Your task to perform on an android device: Search for jbl flip 4 on target.com, select the first entry, add it to the cart, then select checkout. Image 0: 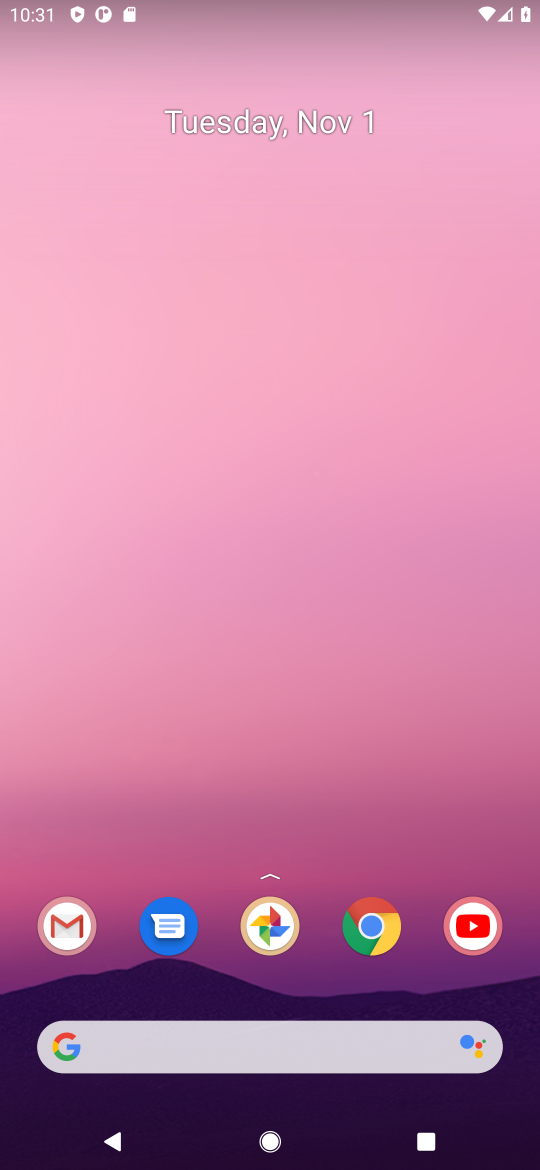
Step 0: click (377, 934)
Your task to perform on an android device: Search for jbl flip 4 on target.com, select the first entry, add it to the cart, then select checkout. Image 1: 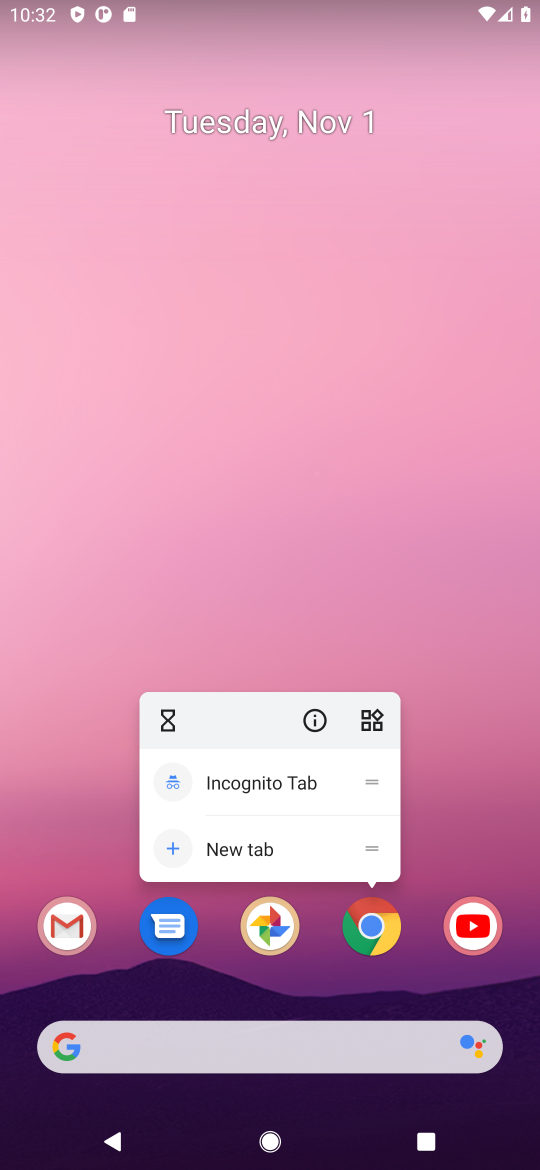
Step 1: click (369, 925)
Your task to perform on an android device: Search for jbl flip 4 on target.com, select the first entry, add it to the cart, then select checkout. Image 2: 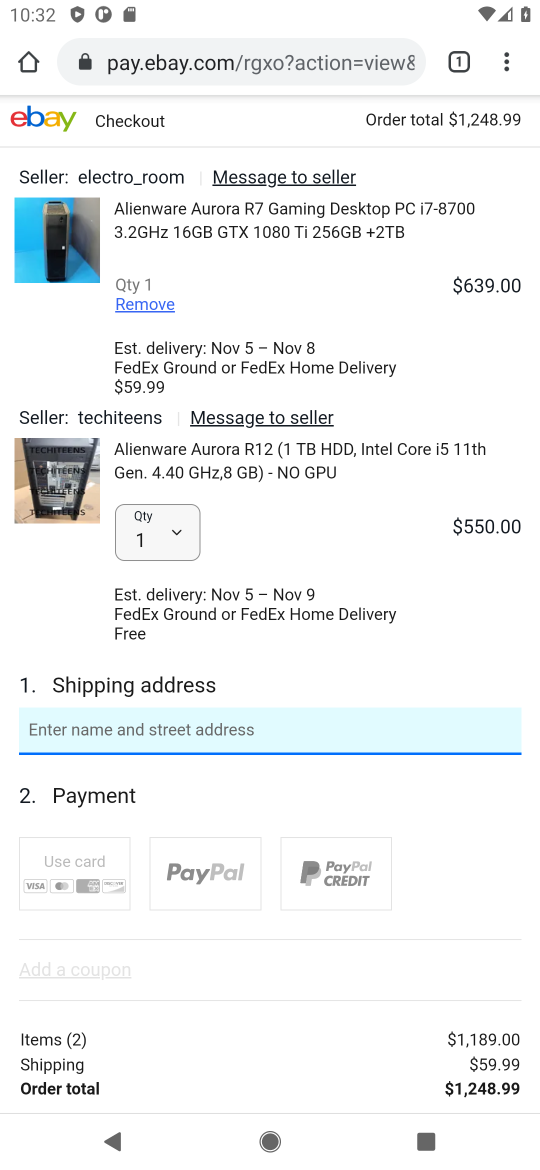
Step 2: click (177, 61)
Your task to perform on an android device: Search for jbl flip 4 on target.com, select the first entry, add it to the cart, then select checkout. Image 3: 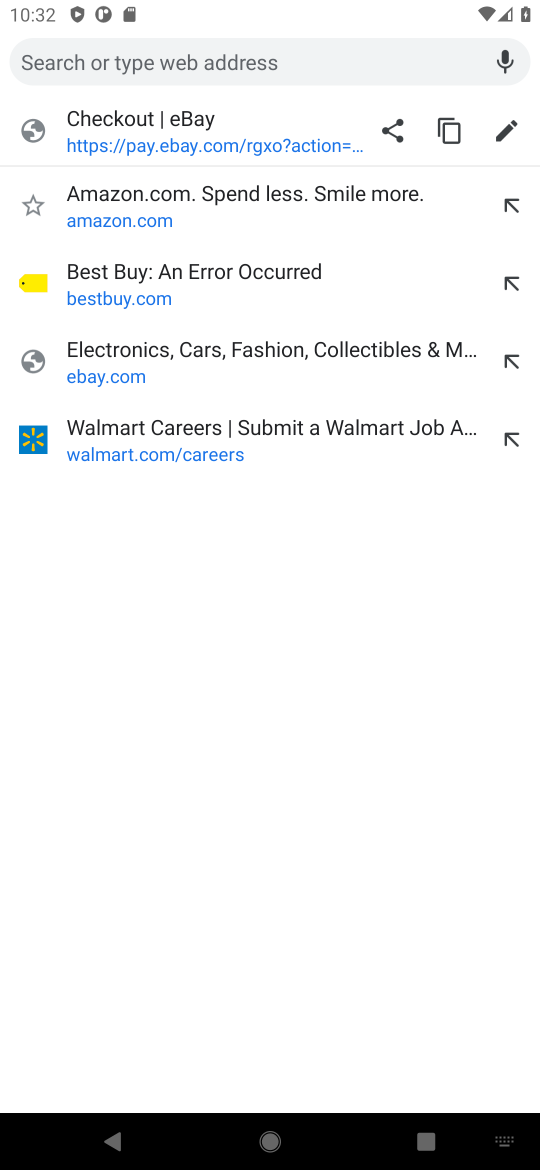
Step 3: type "target.com"
Your task to perform on an android device: Search for jbl flip 4 on target.com, select the first entry, add it to the cart, then select checkout. Image 4: 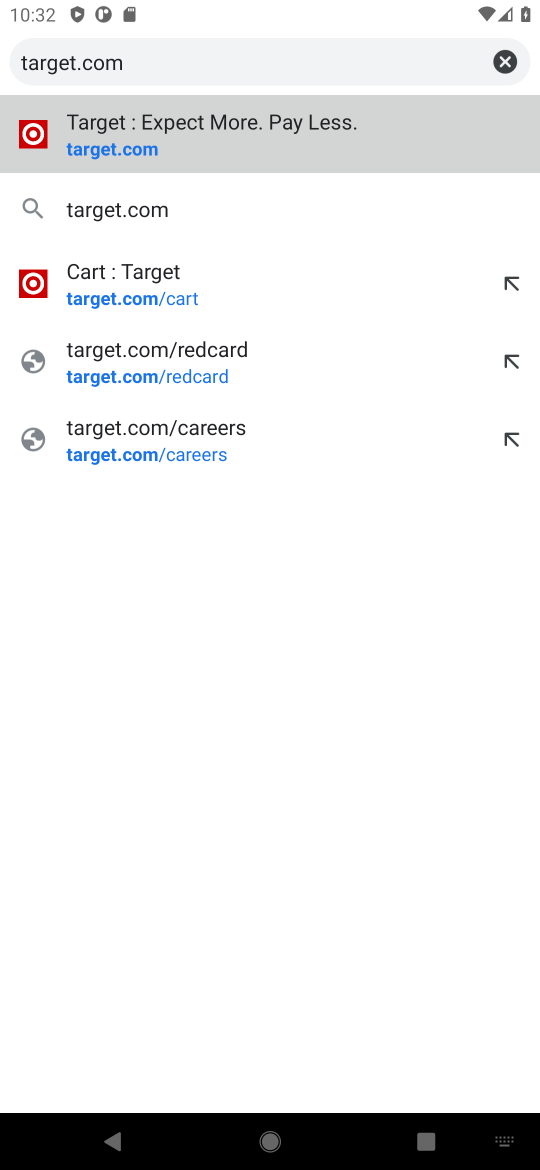
Step 4: click (122, 138)
Your task to perform on an android device: Search for jbl flip 4 on target.com, select the first entry, add it to the cart, then select checkout. Image 5: 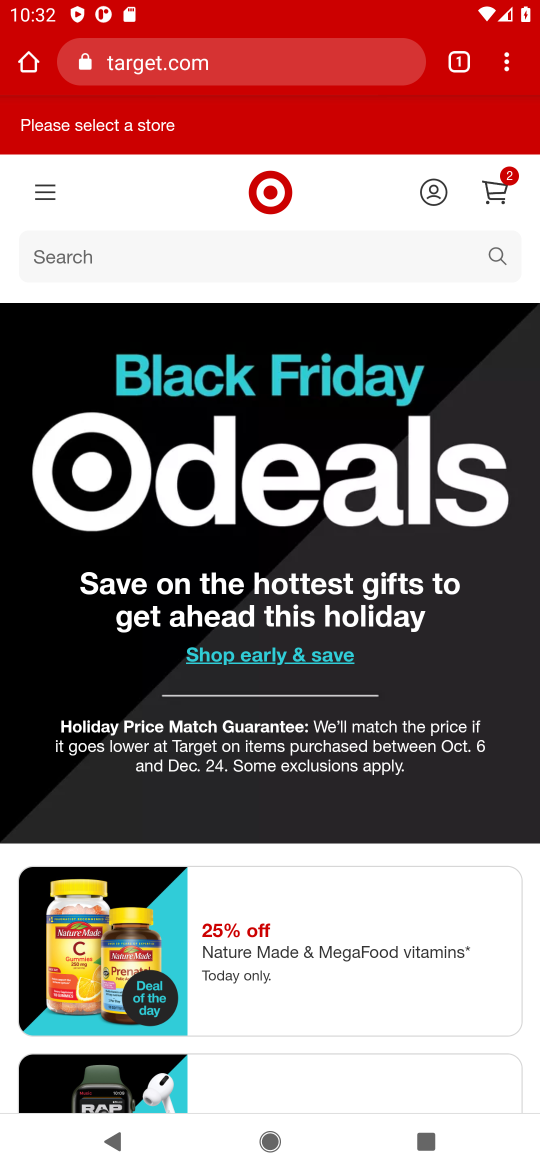
Step 5: click (496, 264)
Your task to perform on an android device: Search for jbl flip 4 on target.com, select the first entry, add it to the cart, then select checkout. Image 6: 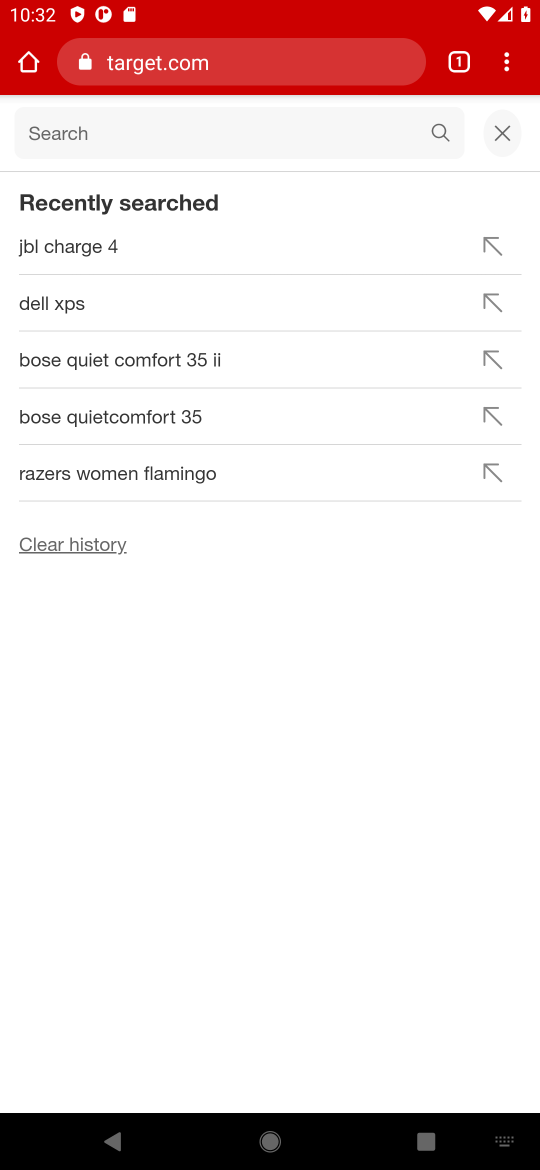
Step 6: type "jbl flip 4"
Your task to perform on an android device: Search for jbl flip 4 on target.com, select the first entry, add it to the cart, then select checkout. Image 7: 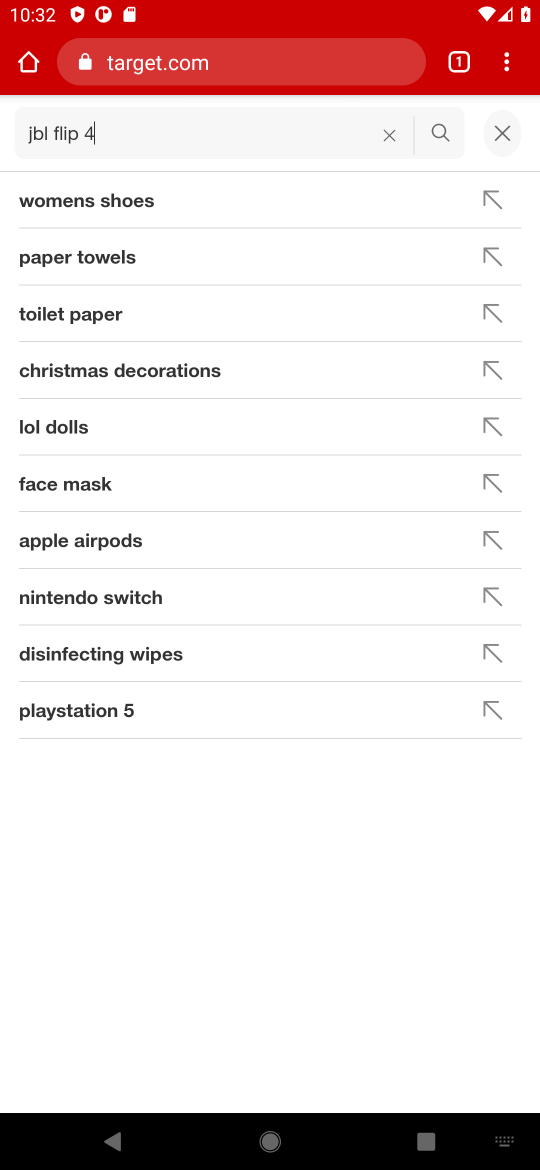
Step 7: type ""
Your task to perform on an android device: Search for jbl flip 4 on target.com, select the first entry, add it to the cart, then select checkout. Image 8: 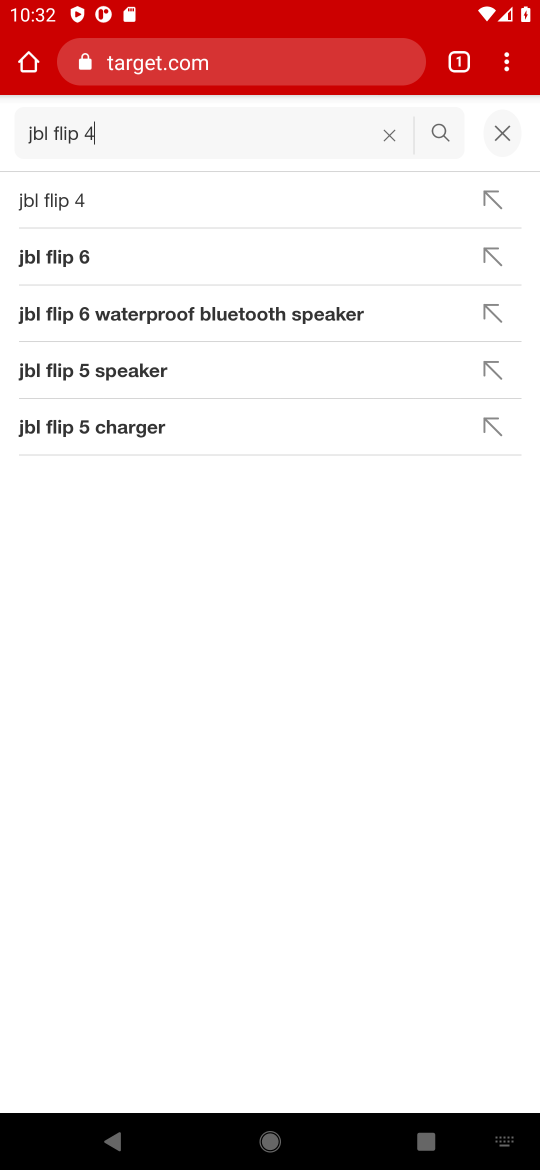
Step 8: click (32, 200)
Your task to perform on an android device: Search for jbl flip 4 on target.com, select the first entry, add it to the cart, then select checkout. Image 9: 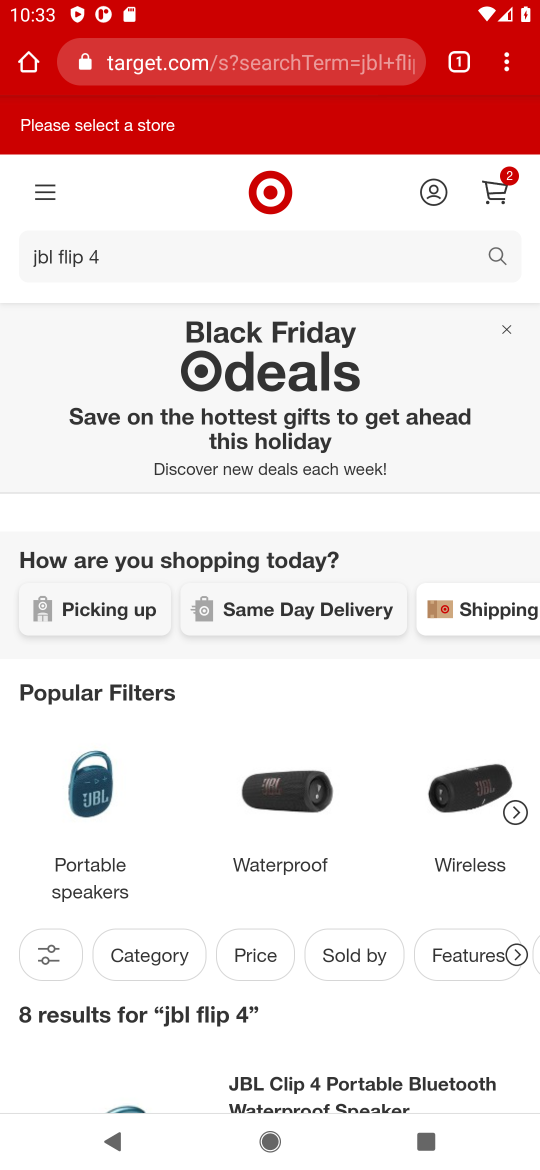
Step 9: drag from (197, 997) to (249, 428)
Your task to perform on an android device: Search for jbl flip 4 on target.com, select the first entry, add it to the cart, then select checkout. Image 10: 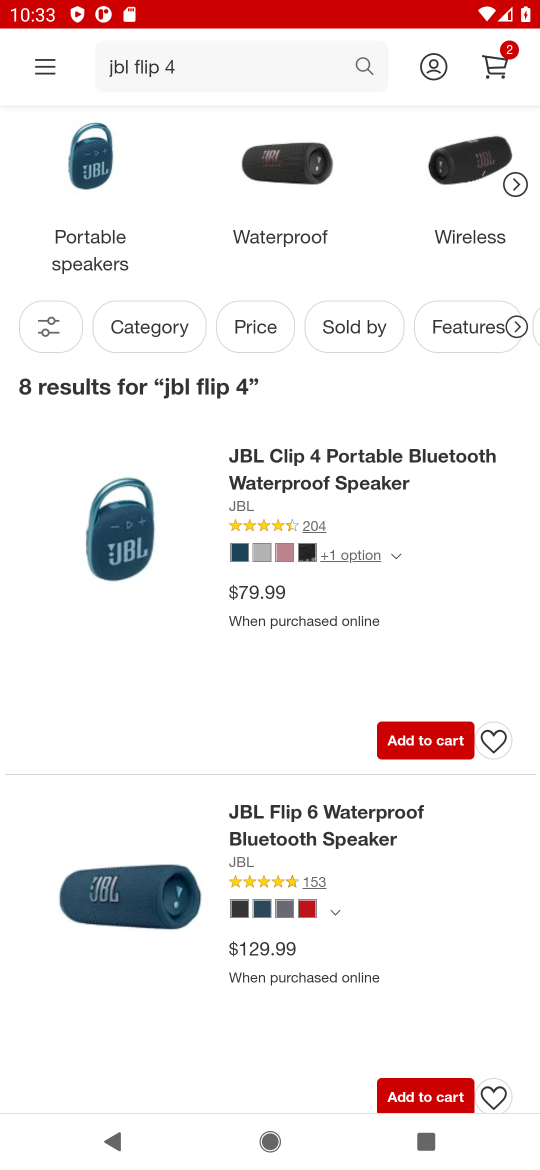
Step 10: click (292, 468)
Your task to perform on an android device: Search for jbl flip 4 on target.com, select the first entry, add it to the cart, then select checkout. Image 11: 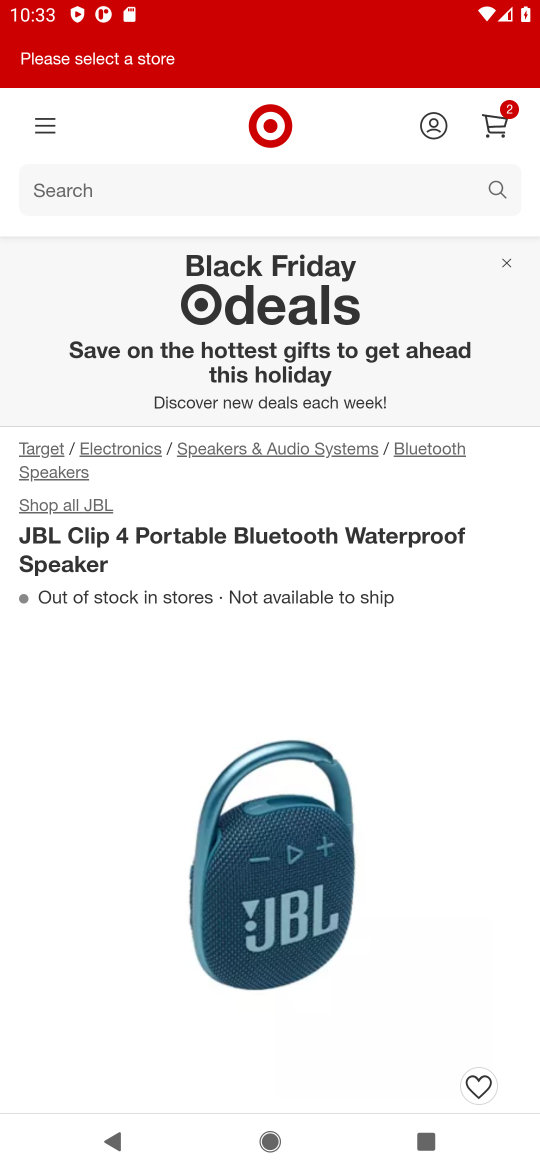
Step 11: drag from (162, 911) to (150, 271)
Your task to perform on an android device: Search for jbl flip 4 on target.com, select the first entry, add it to the cart, then select checkout. Image 12: 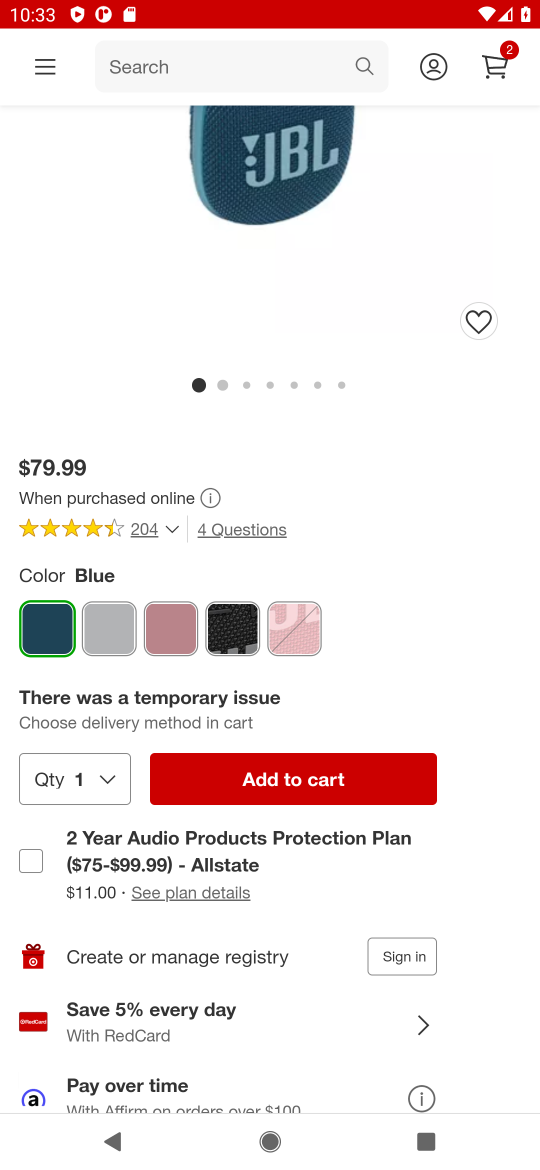
Step 12: click (282, 773)
Your task to perform on an android device: Search for jbl flip 4 on target.com, select the first entry, add it to the cart, then select checkout. Image 13: 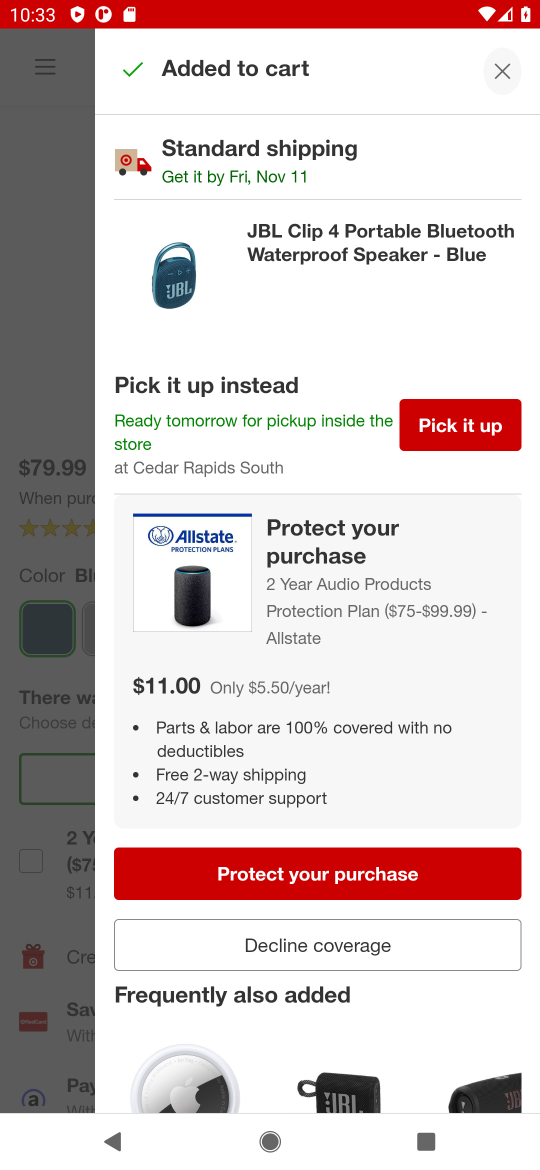
Step 13: click (303, 884)
Your task to perform on an android device: Search for jbl flip 4 on target.com, select the first entry, add it to the cart, then select checkout. Image 14: 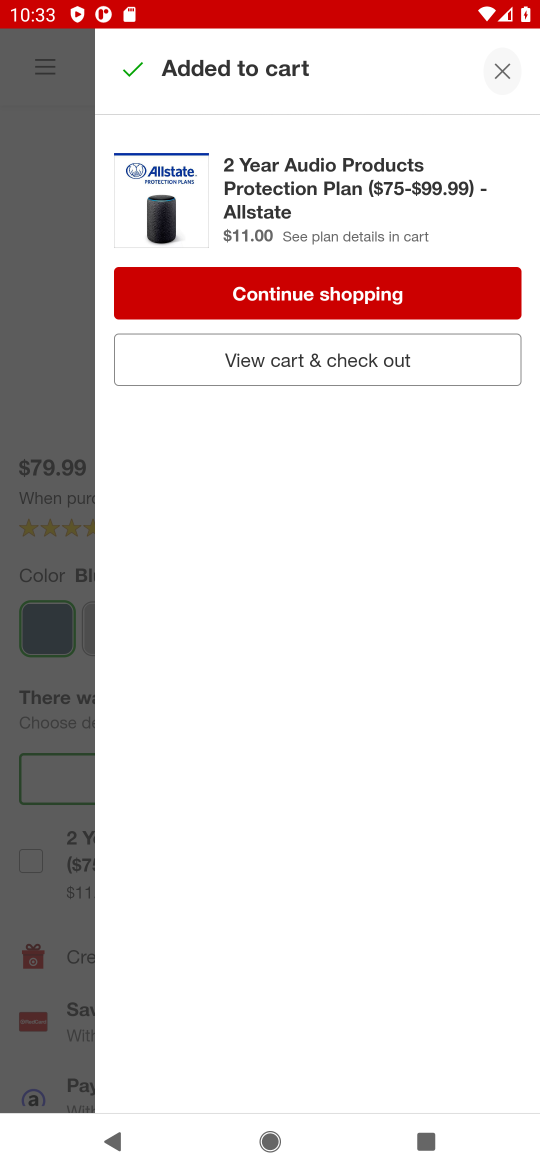
Step 14: click (305, 363)
Your task to perform on an android device: Search for jbl flip 4 on target.com, select the first entry, add it to the cart, then select checkout. Image 15: 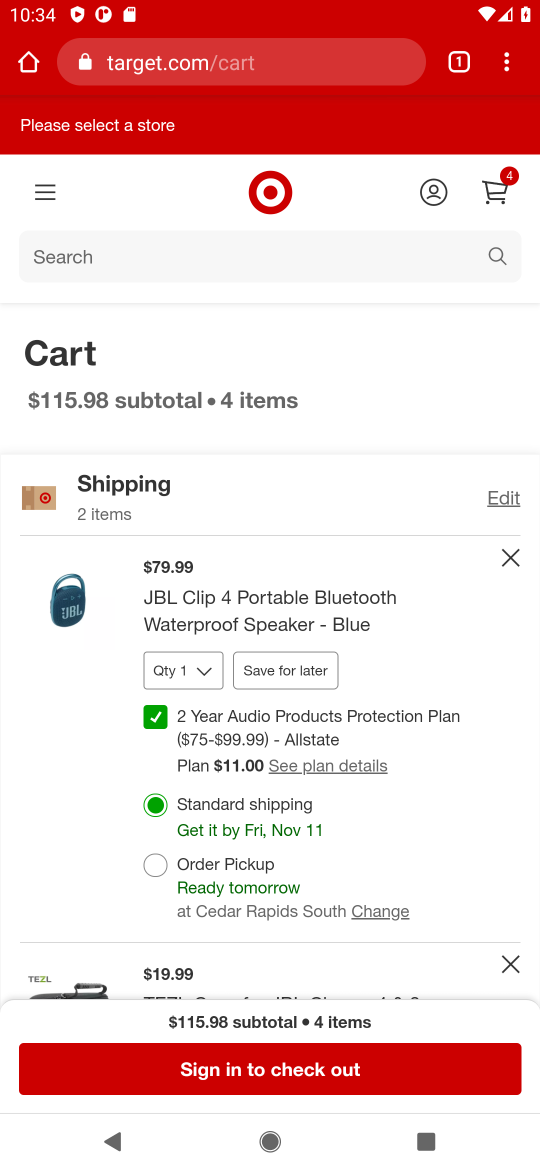
Step 15: click (323, 1069)
Your task to perform on an android device: Search for jbl flip 4 on target.com, select the first entry, add it to the cart, then select checkout. Image 16: 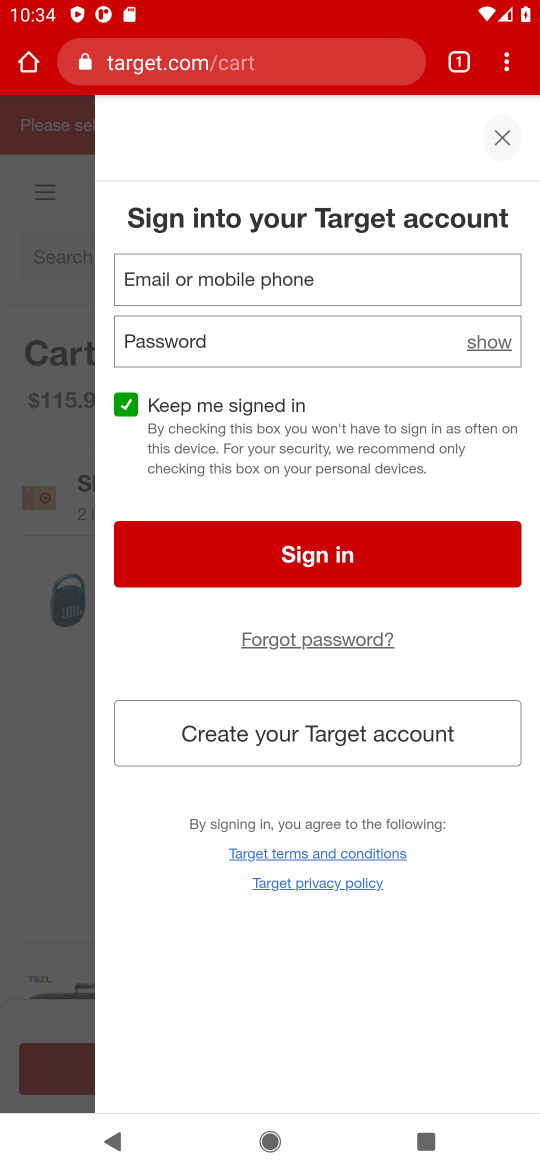
Step 16: task complete